Your task to perform on an android device: check the backup settings in the google photos Image 0: 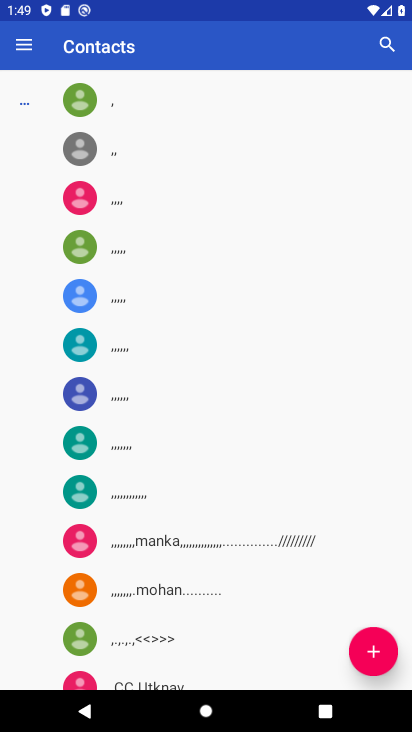
Step 0: press home button
Your task to perform on an android device: check the backup settings in the google photos Image 1: 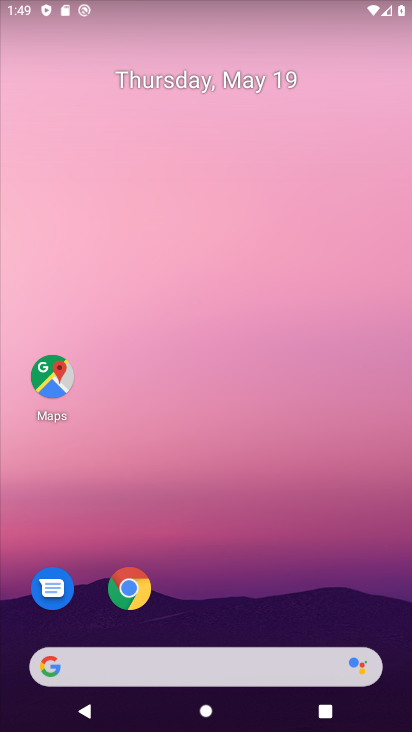
Step 1: drag from (355, 618) to (379, 30)
Your task to perform on an android device: check the backup settings in the google photos Image 2: 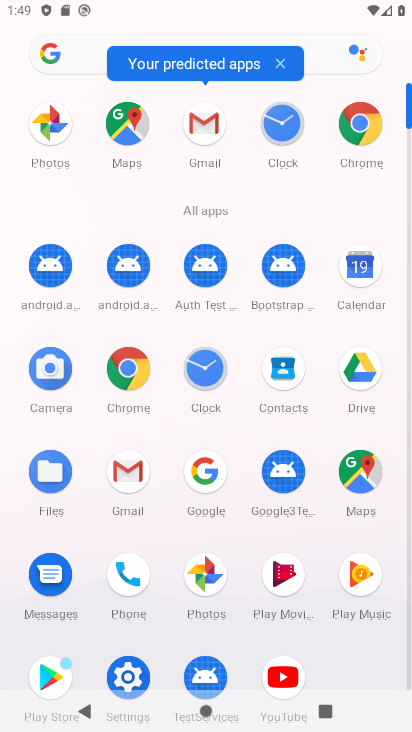
Step 2: click (213, 577)
Your task to perform on an android device: check the backup settings in the google photos Image 3: 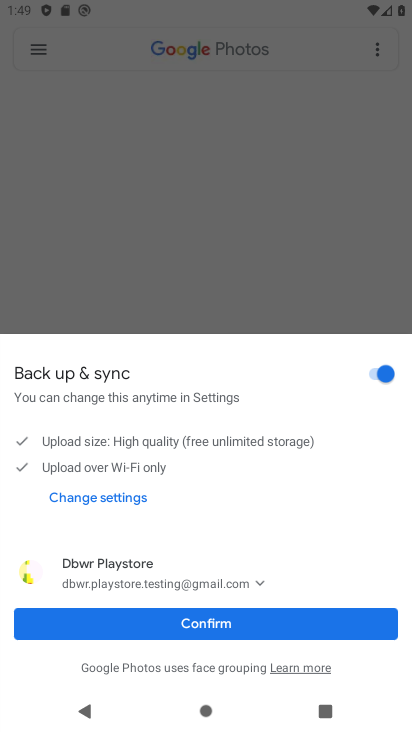
Step 3: click (199, 615)
Your task to perform on an android device: check the backup settings in the google photos Image 4: 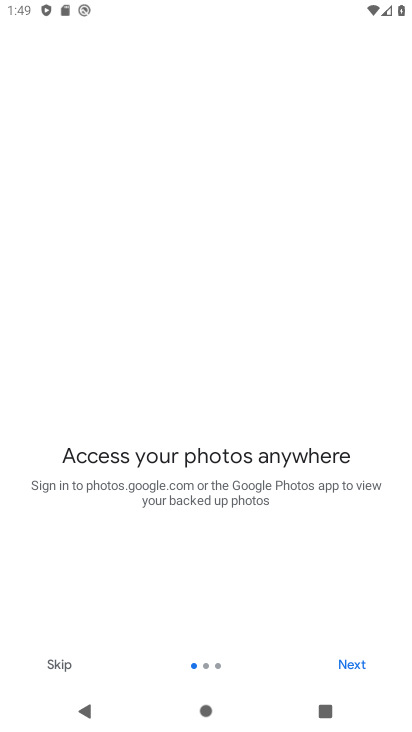
Step 4: click (50, 667)
Your task to perform on an android device: check the backup settings in the google photos Image 5: 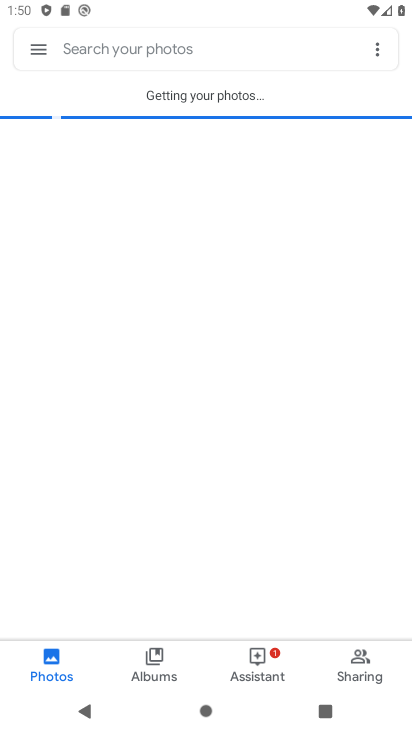
Step 5: click (53, 665)
Your task to perform on an android device: check the backup settings in the google photos Image 6: 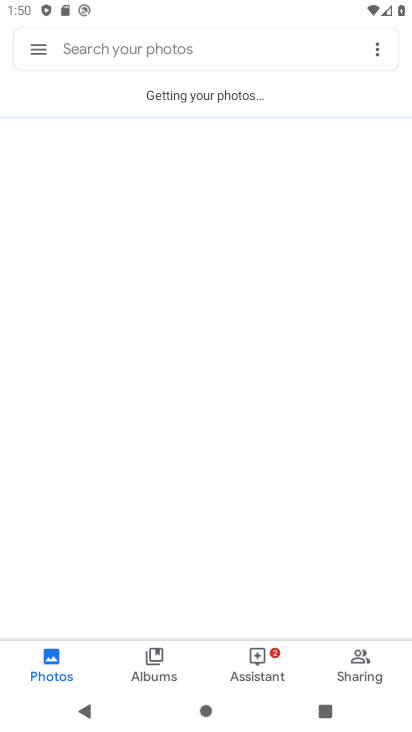
Step 6: click (45, 46)
Your task to perform on an android device: check the backup settings in the google photos Image 7: 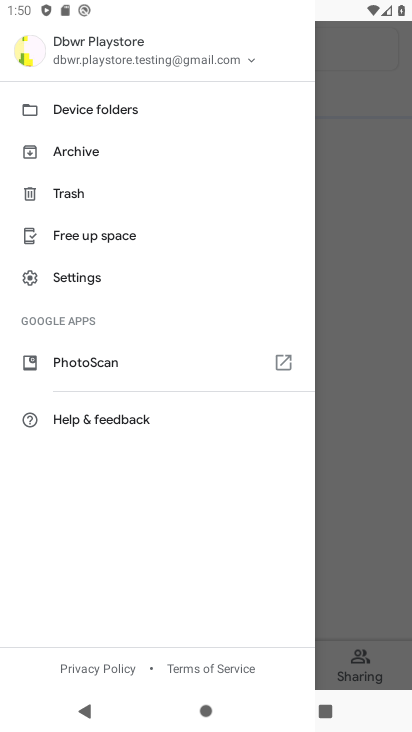
Step 7: click (66, 276)
Your task to perform on an android device: check the backup settings in the google photos Image 8: 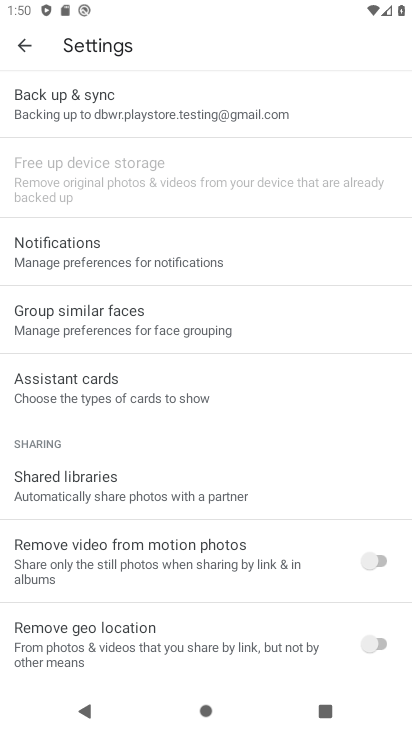
Step 8: click (66, 119)
Your task to perform on an android device: check the backup settings in the google photos Image 9: 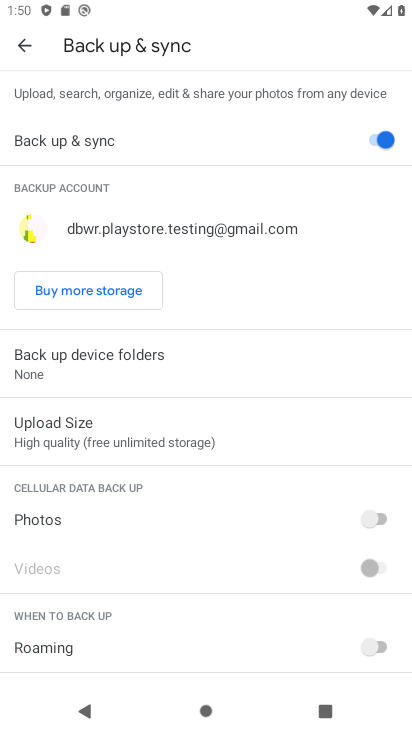
Step 9: task complete